Your task to perform on an android device: turn notification dots off Image 0: 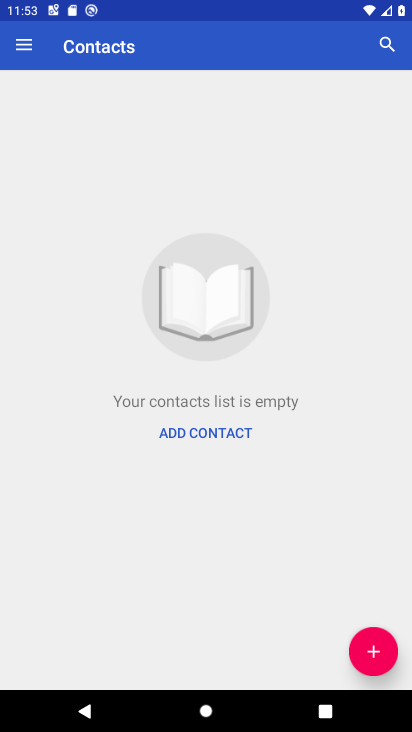
Step 0: press home button
Your task to perform on an android device: turn notification dots off Image 1: 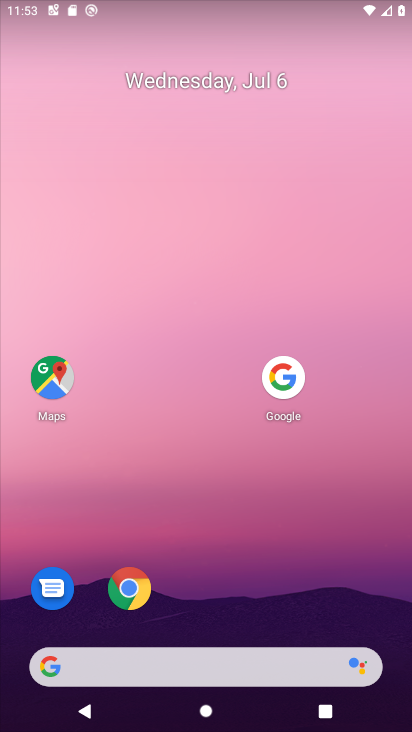
Step 1: drag from (218, 664) to (411, 13)
Your task to perform on an android device: turn notification dots off Image 2: 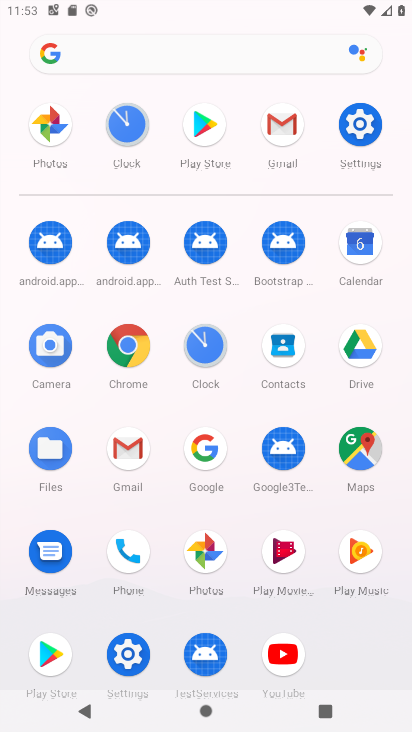
Step 2: click (361, 127)
Your task to perform on an android device: turn notification dots off Image 3: 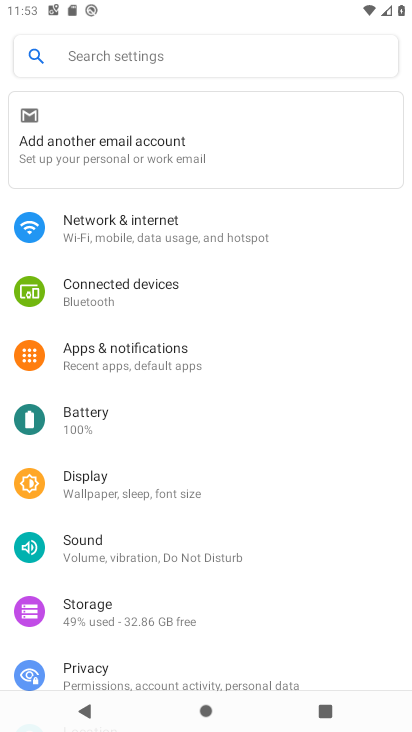
Step 3: click (149, 355)
Your task to perform on an android device: turn notification dots off Image 4: 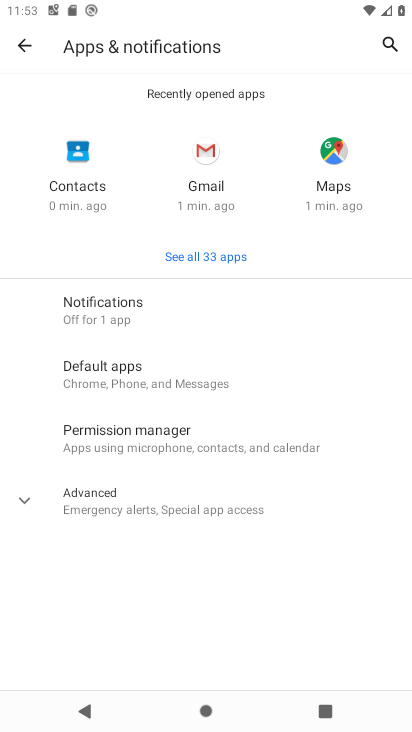
Step 4: click (128, 510)
Your task to perform on an android device: turn notification dots off Image 5: 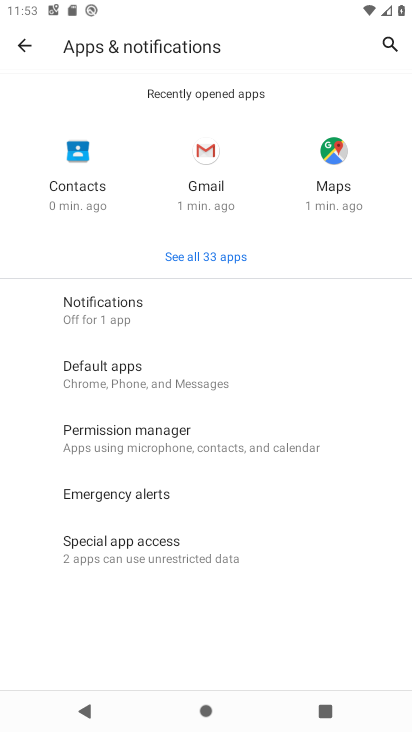
Step 5: click (121, 310)
Your task to perform on an android device: turn notification dots off Image 6: 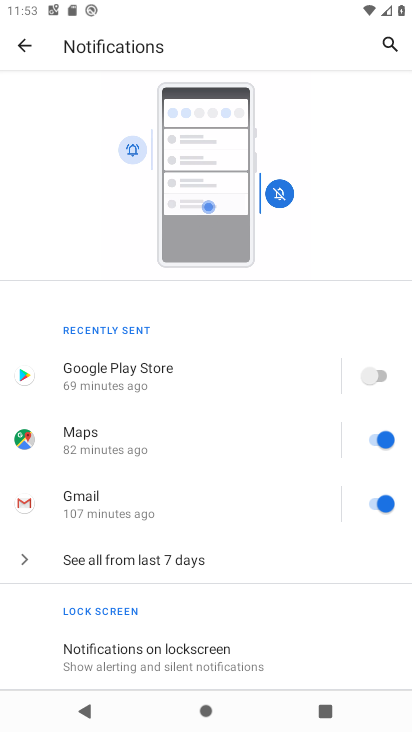
Step 6: drag from (158, 623) to (338, 126)
Your task to perform on an android device: turn notification dots off Image 7: 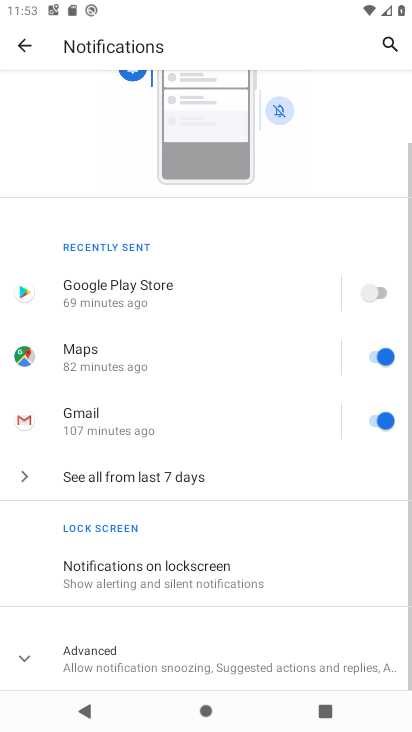
Step 7: click (121, 666)
Your task to perform on an android device: turn notification dots off Image 8: 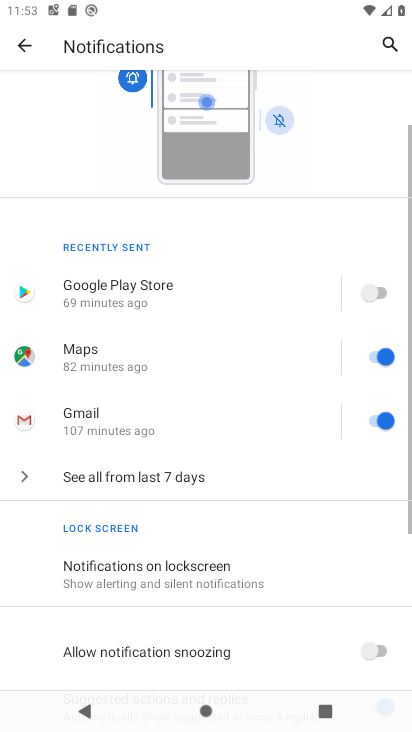
Step 8: drag from (158, 633) to (347, 146)
Your task to perform on an android device: turn notification dots off Image 9: 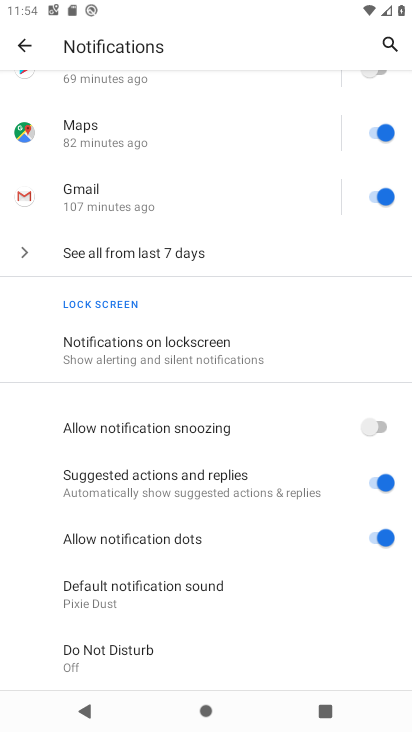
Step 9: click (374, 535)
Your task to perform on an android device: turn notification dots off Image 10: 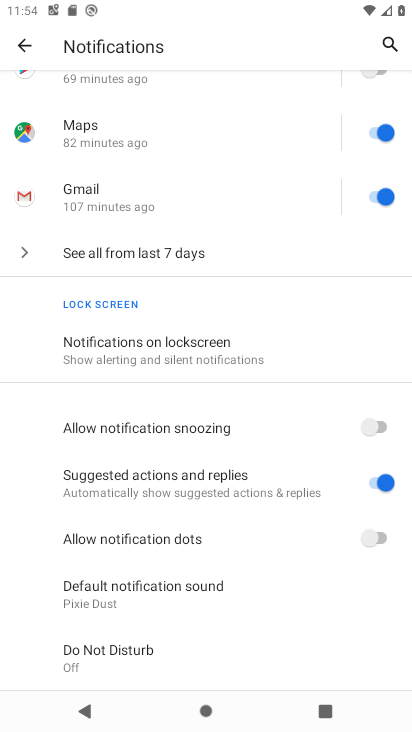
Step 10: task complete